Your task to perform on an android device: delete location history Image 0: 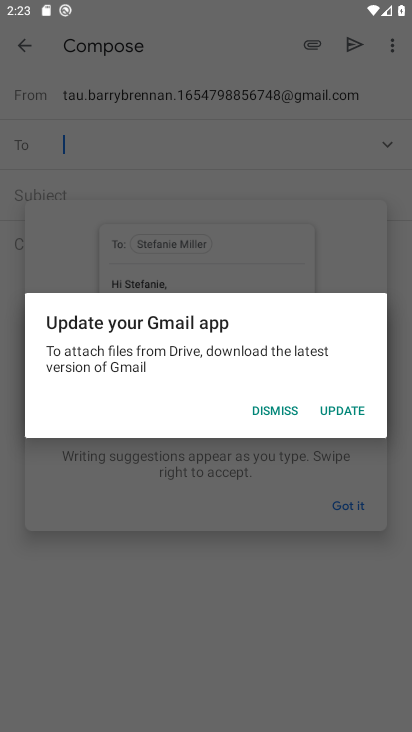
Step 0: click (271, 401)
Your task to perform on an android device: delete location history Image 1: 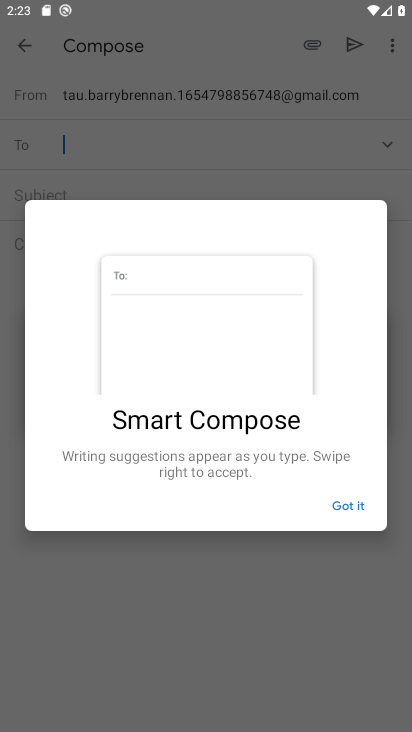
Step 1: click (352, 494)
Your task to perform on an android device: delete location history Image 2: 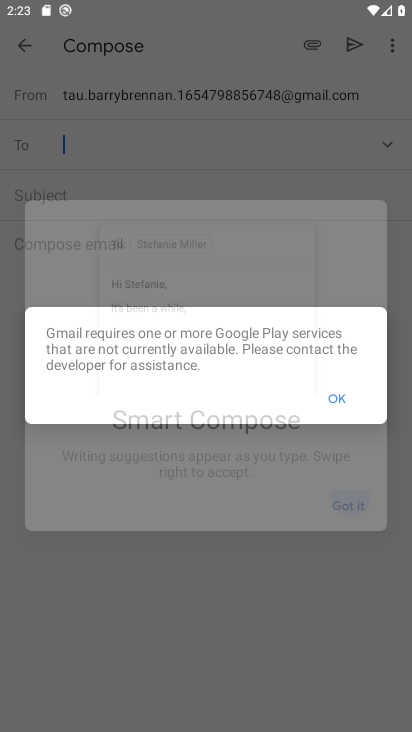
Step 2: click (351, 497)
Your task to perform on an android device: delete location history Image 3: 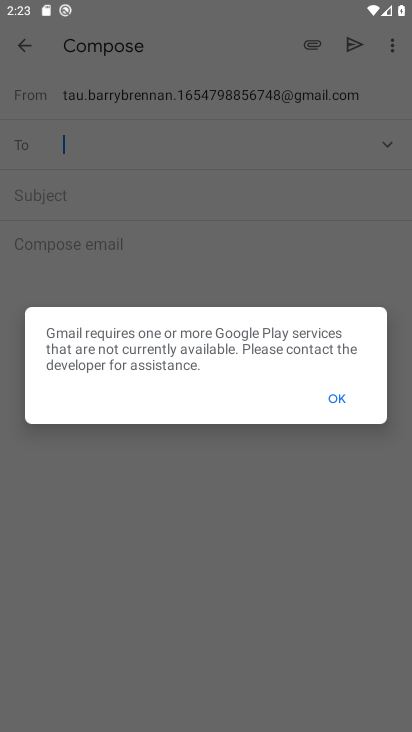
Step 3: click (351, 498)
Your task to perform on an android device: delete location history Image 4: 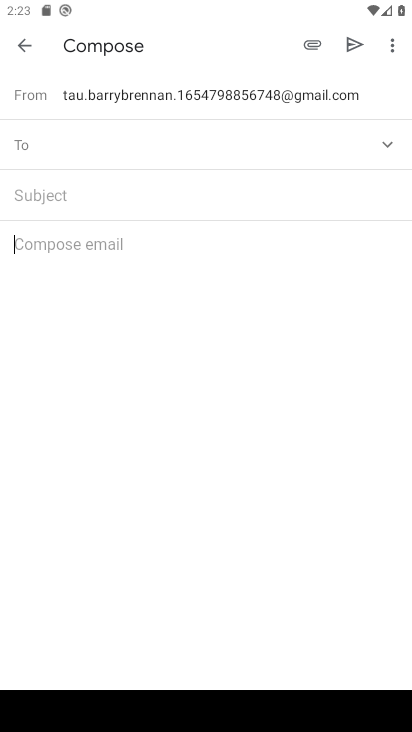
Step 4: click (23, 41)
Your task to perform on an android device: delete location history Image 5: 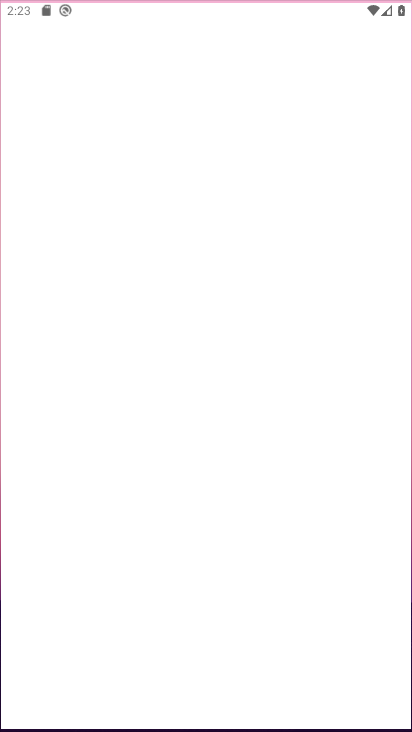
Step 5: click (20, 43)
Your task to perform on an android device: delete location history Image 6: 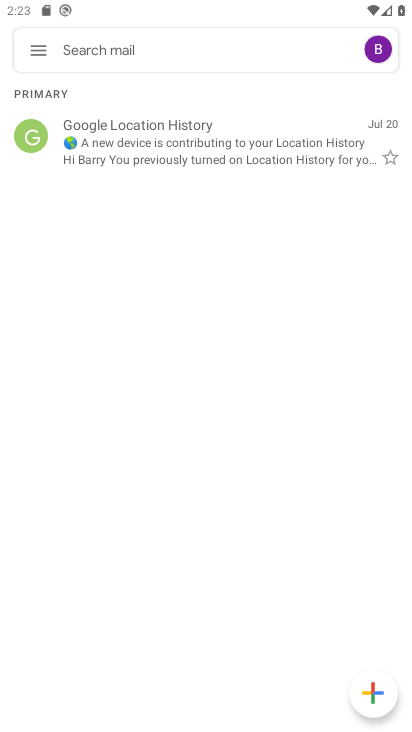
Step 6: click (21, 47)
Your task to perform on an android device: delete location history Image 7: 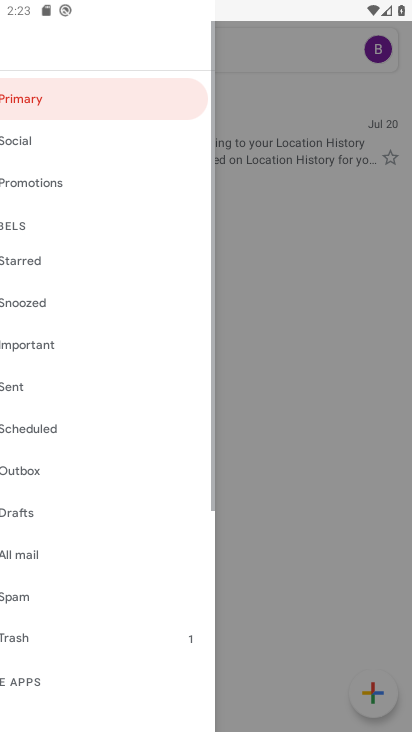
Step 7: drag from (26, 47) to (393, 335)
Your task to perform on an android device: delete location history Image 8: 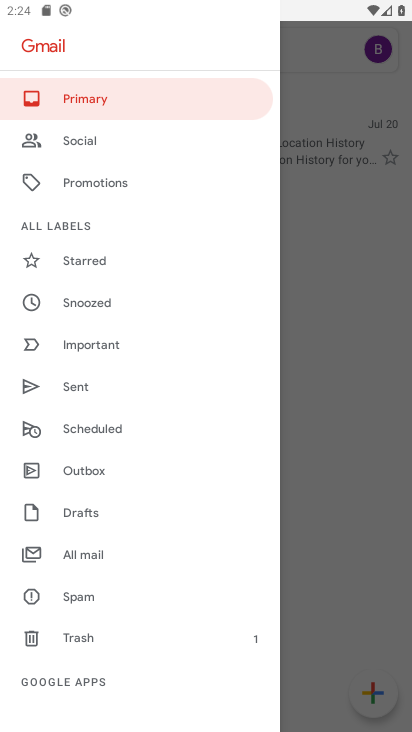
Step 8: press back button
Your task to perform on an android device: delete location history Image 9: 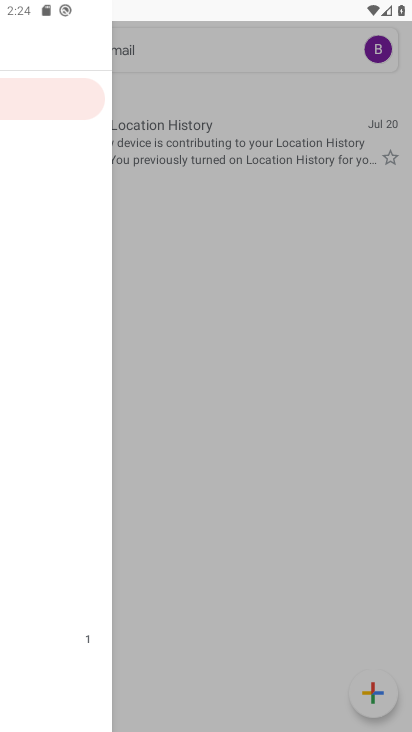
Step 9: press back button
Your task to perform on an android device: delete location history Image 10: 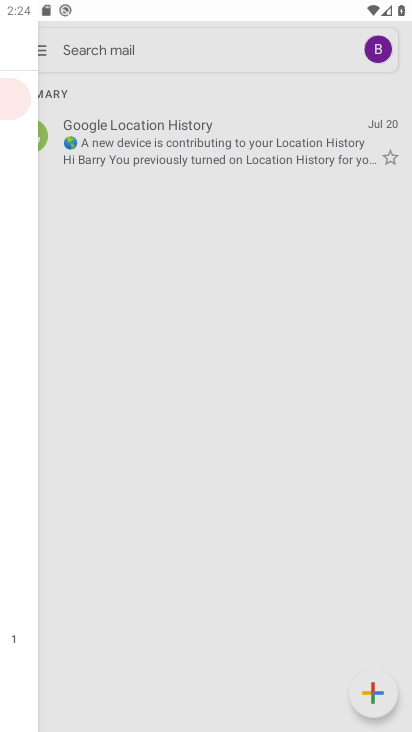
Step 10: drag from (393, 335) to (376, 499)
Your task to perform on an android device: delete location history Image 11: 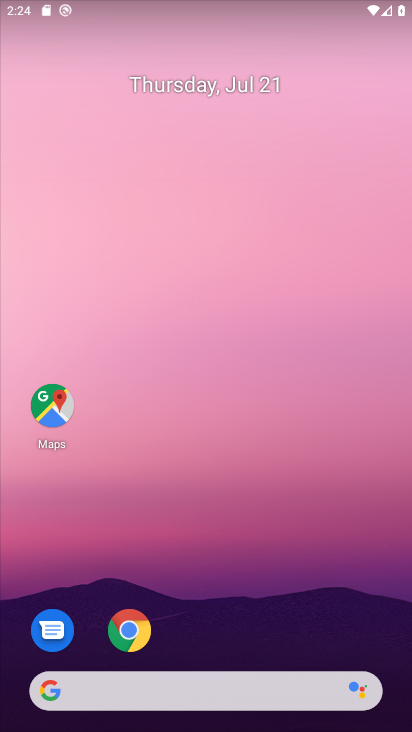
Step 11: drag from (225, 674) to (198, 75)
Your task to perform on an android device: delete location history Image 12: 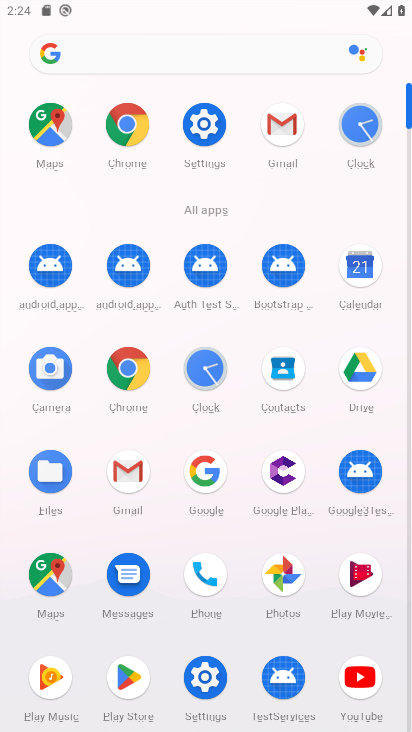
Step 12: click (211, 118)
Your task to perform on an android device: delete location history Image 13: 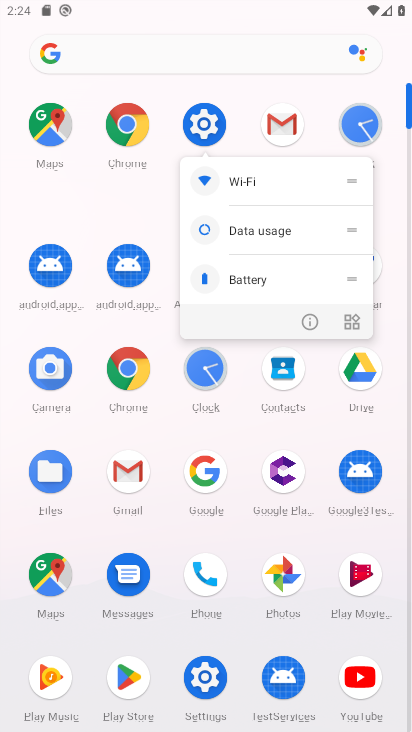
Step 13: click (206, 127)
Your task to perform on an android device: delete location history Image 14: 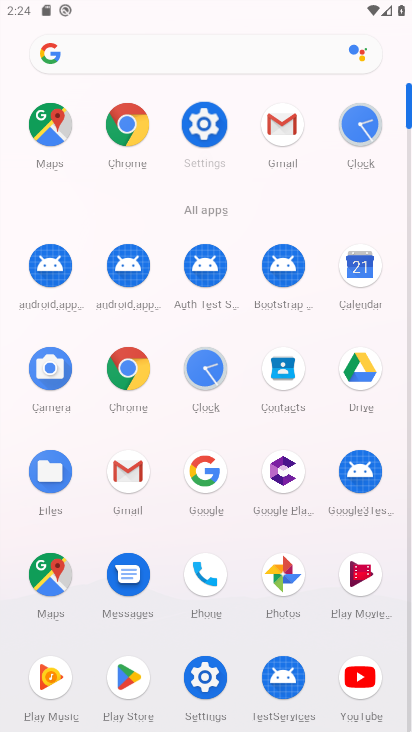
Step 14: click (206, 127)
Your task to perform on an android device: delete location history Image 15: 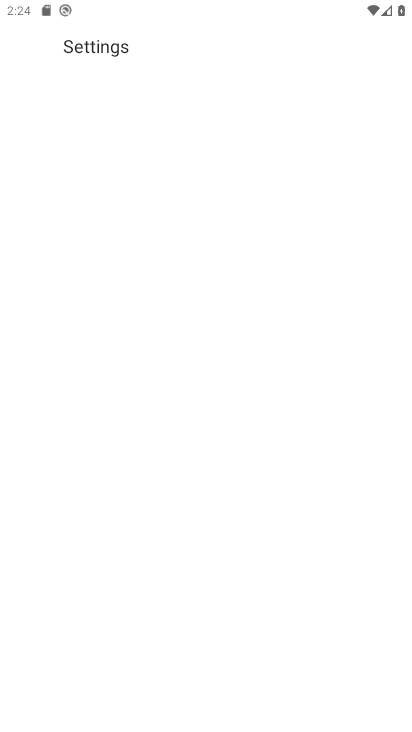
Step 15: click (205, 129)
Your task to perform on an android device: delete location history Image 16: 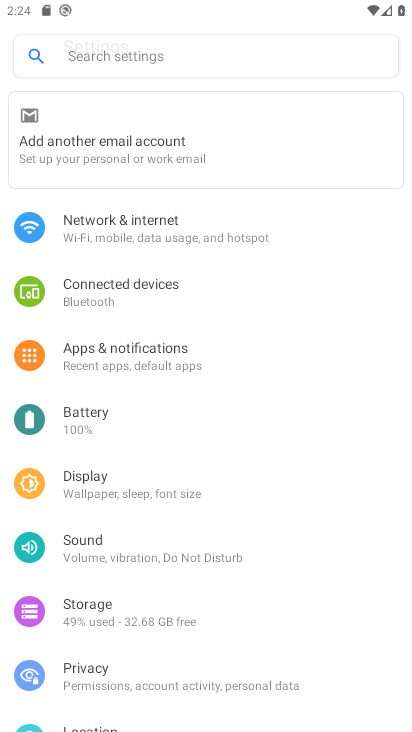
Step 16: click (203, 133)
Your task to perform on an android device: delete location history Image 17: 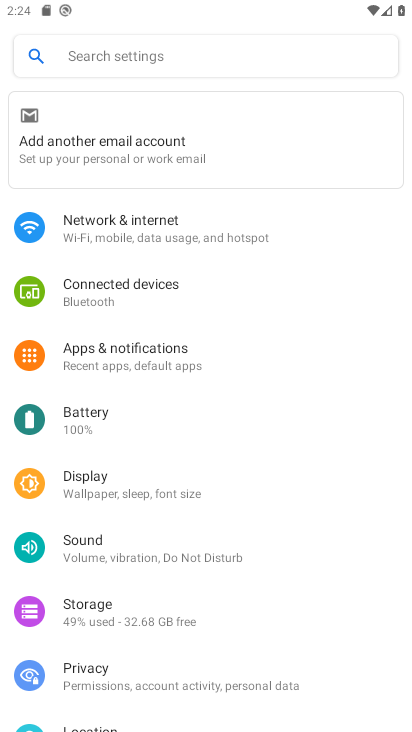
Step 17: drag from (179, 532) to (177, 336)
Your task to perform on an android device: delete location history Image 18: 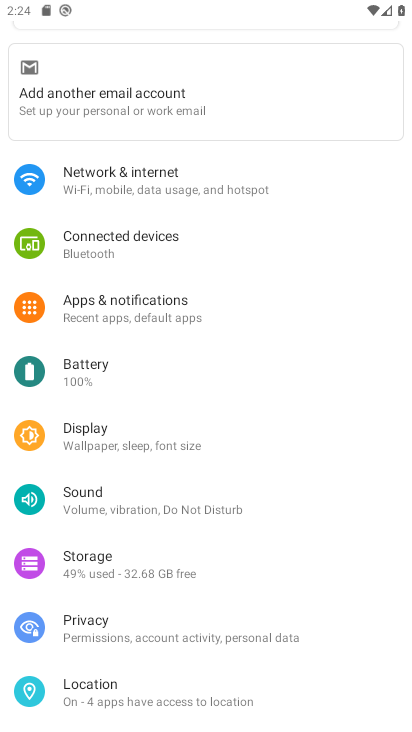
Step 18: click (84, 682)
Your task to perform on an android device: delete location history Image 19: 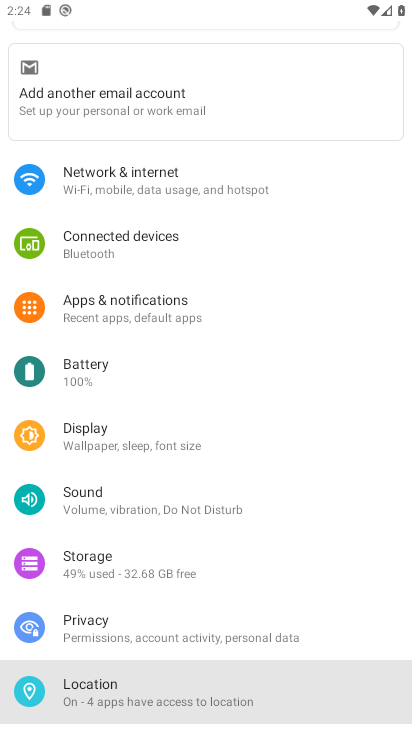
Step 19: click (87, 682)
Your task to perform on an android device: delete location history Image 20: 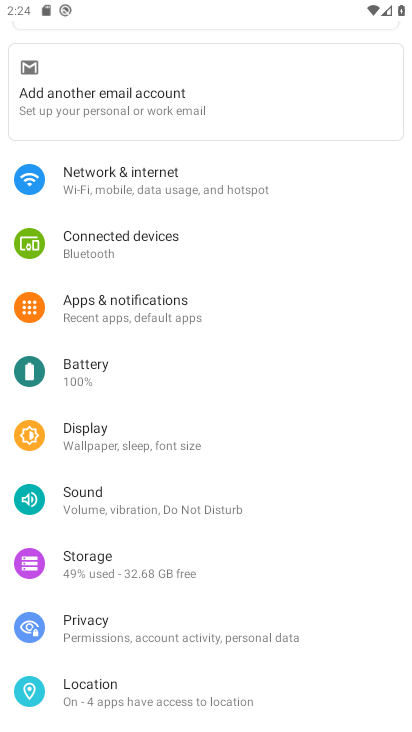
Step 20: click (87, 682)
Your task to perform on an android device: delete location history Image 21: 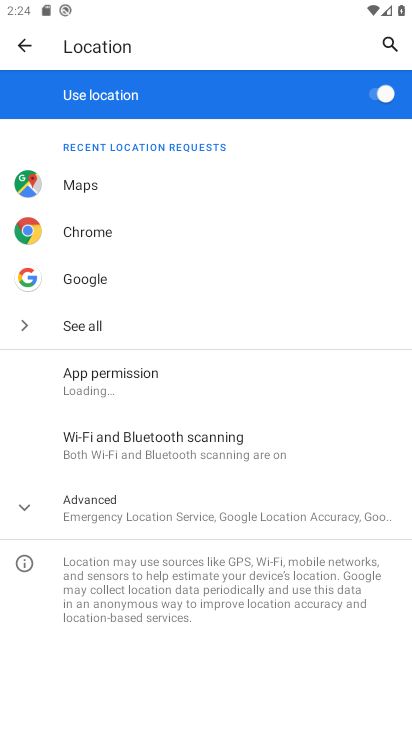
Step 21: click (98, 514)
Your task to perform on an android device: delete location history Image 22: 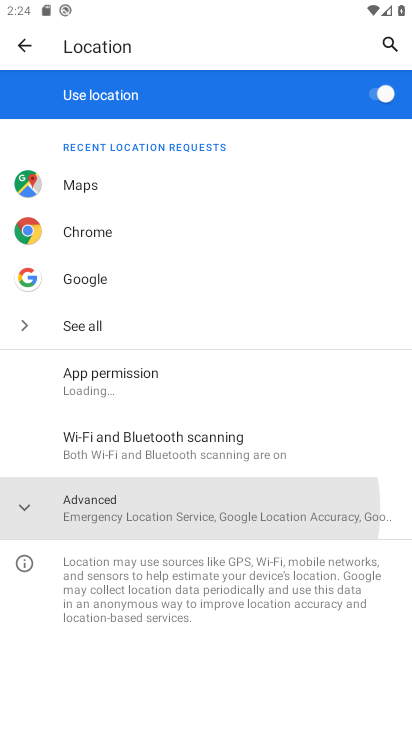
Step 22: click (94, 515)
Your task to perform on an android device: delete location history Image 23: 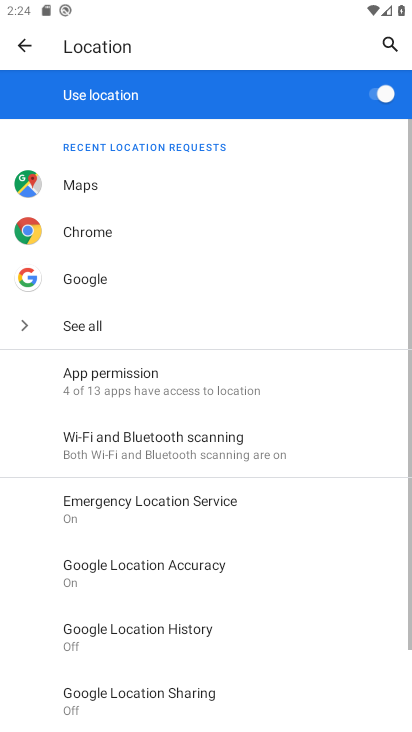
Step 23: click (104, 606)
Your task to perform on an android device: delete location history Image 24: 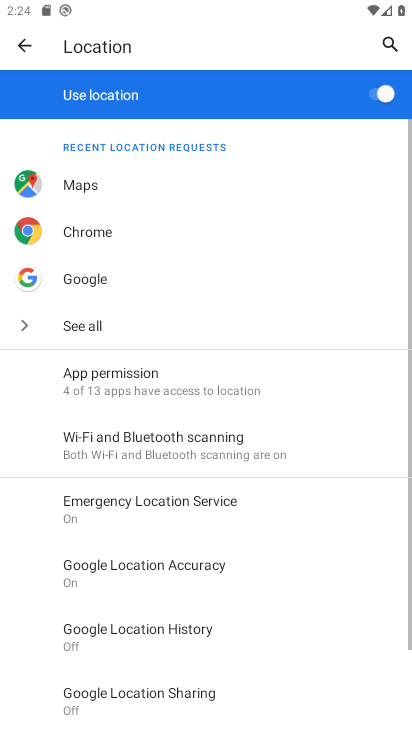
Step 24: click (107, 620)
Your task to perform on an android device: delete location history Image 25: 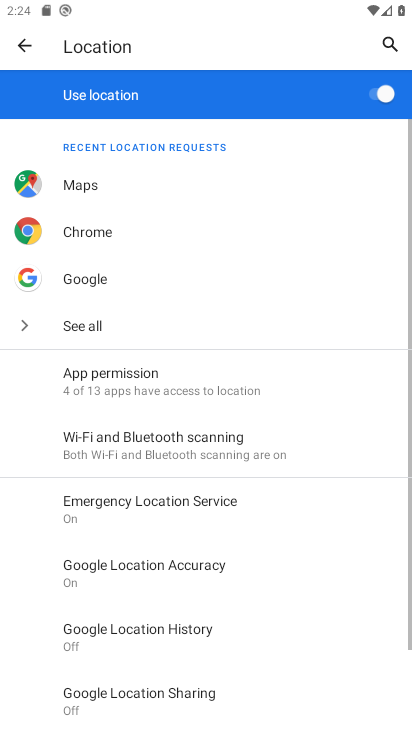
Step 25: click (110, 617)
Your task to perform on an android device: delete location history Image 26: 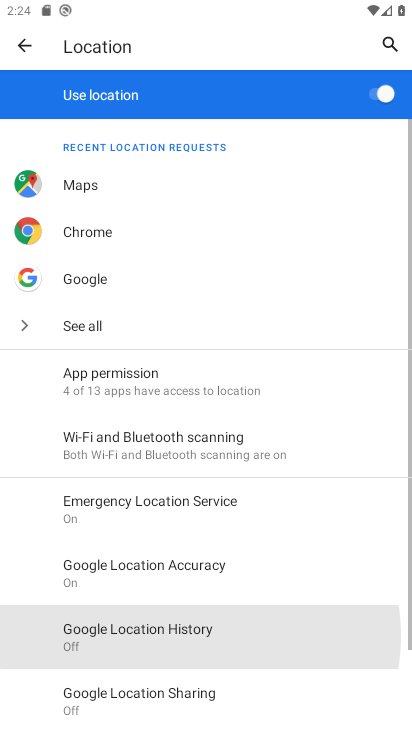
Step 26: click (113, 613)
Your task to perform on an android device: delete location history Image 27: 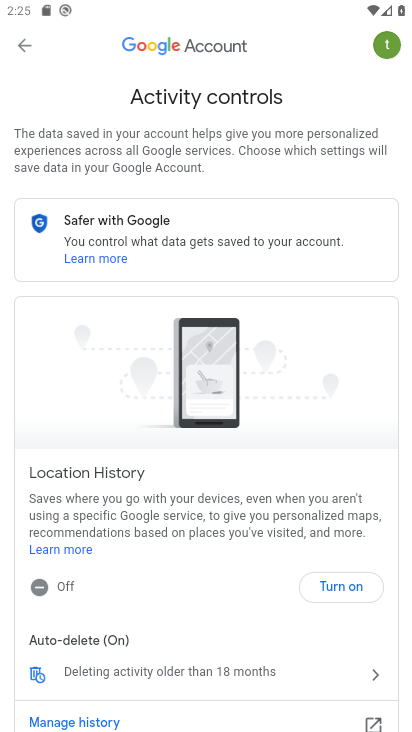
Step 27: task complete